Your task to perform on an android device: Open Google Chrome and click the shortcut for Amazon.com Image 0: 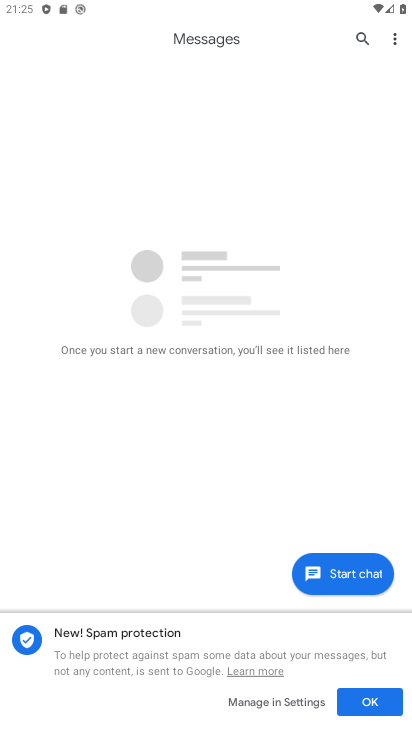
Step 0: press home button
Your task to perform on an android device: Open Google Chrome and click the shortcut for Amazon.com Image 1: 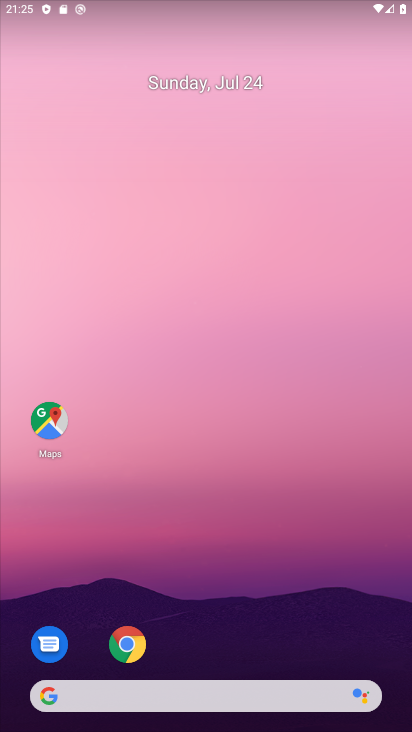
Step 1: click (127, 643)
Your task to perform on an android device: Open Google Chrome and click the shortcut for Amazon.com Image 2: 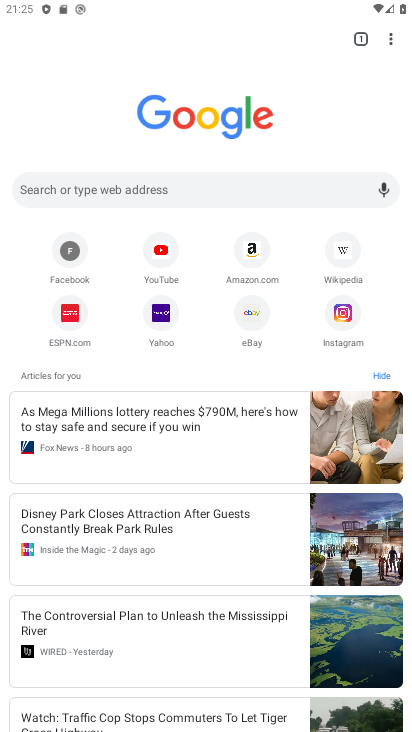
Step 2: click (244, 253)
Your task to perform on an android device: Open Google Chrome and click the shortcut for Amazon.com Image 3: 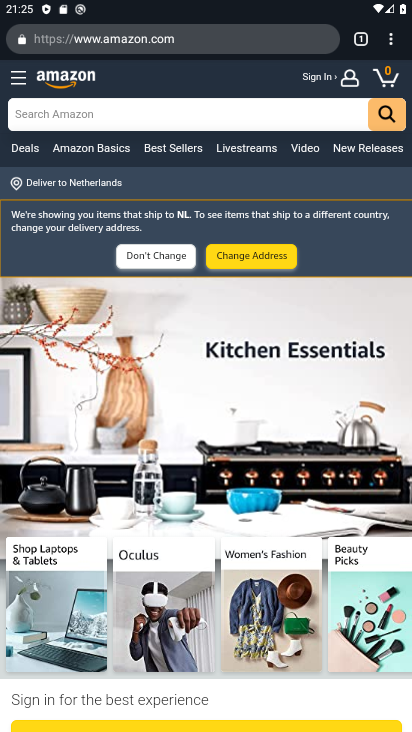
Step 3: task complete